Your task to perform on an android device: Go to calendar. Show me events next week Image 0: 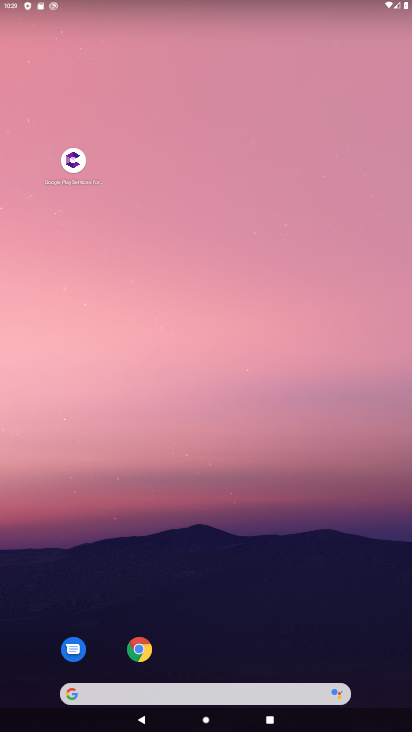
Step 0: drag from (340, 639) to (276, 129)
Your task to perform on an android device: Go to calendar. Show me events next week Image 1: 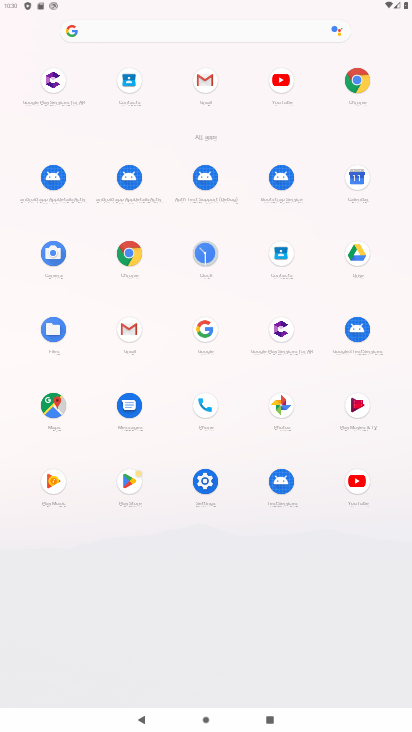
Step 1: click (362, 174)
Your task to perform on an android device: Go to calendar. Show me events next week Image 2: 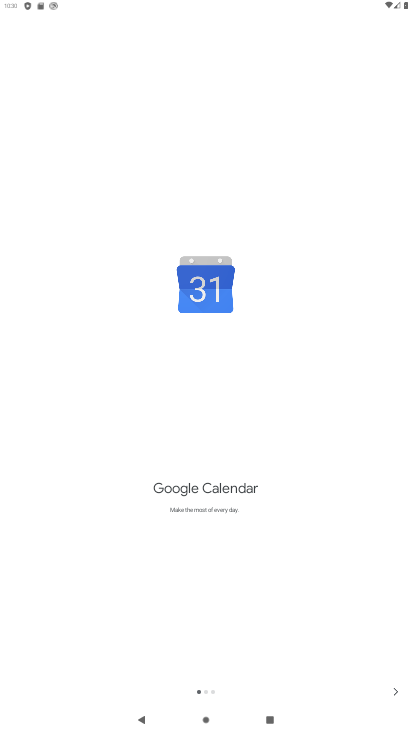
Step 2: click (393, 687)
Your task to perform on an android device: Go to calendar. Show me events next week Image 3: 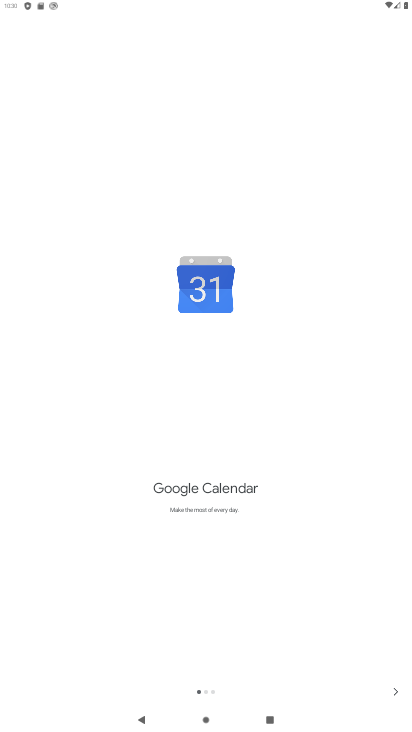
Step 3: click (393, 687)
Your task to perform on an android device: Go to calendar. Show me events next week Image 4: 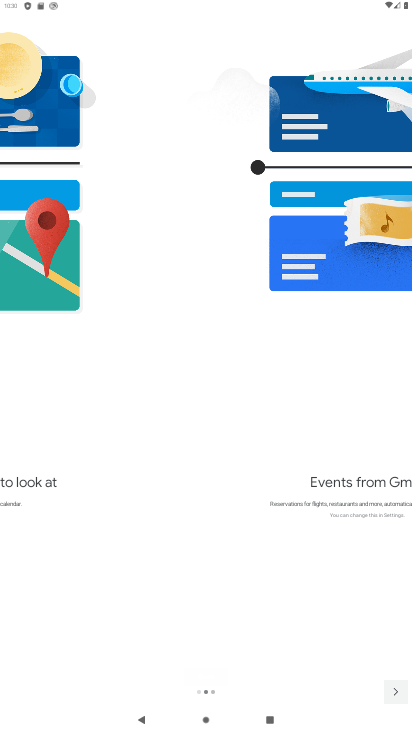
Step 4: click (393, 687)
Your task to perform on an android device: Go to calendar. Show me events next week Image 5: 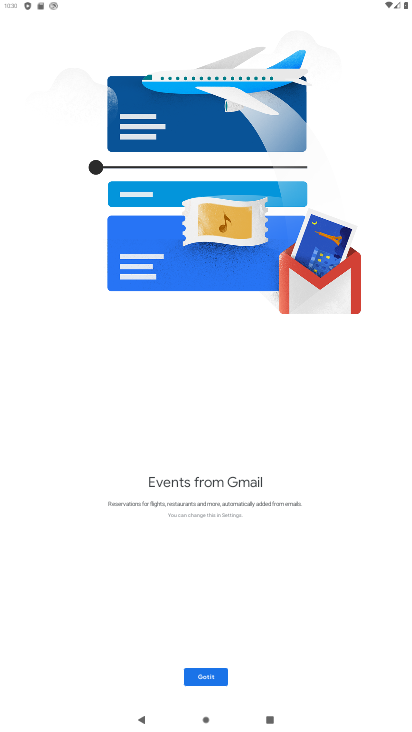
Step 5: click (200, 682)
Your task to perform on an android device: Go to calendar. Show me events next week Image 6: 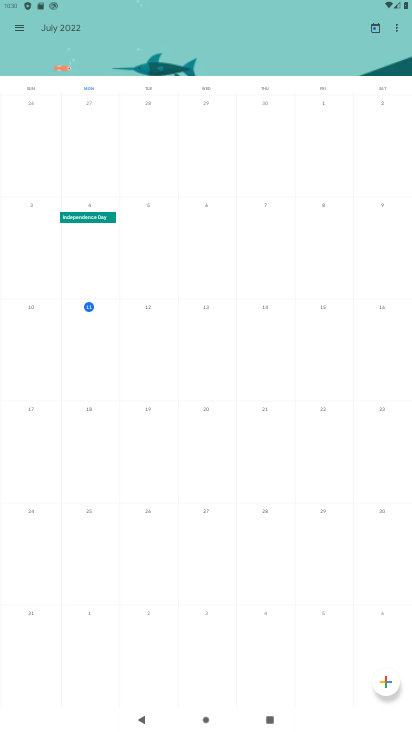
Step 6: click (90, 407)
Your task to perform on an android device: Go to calendar. Show me events next week Image 7: 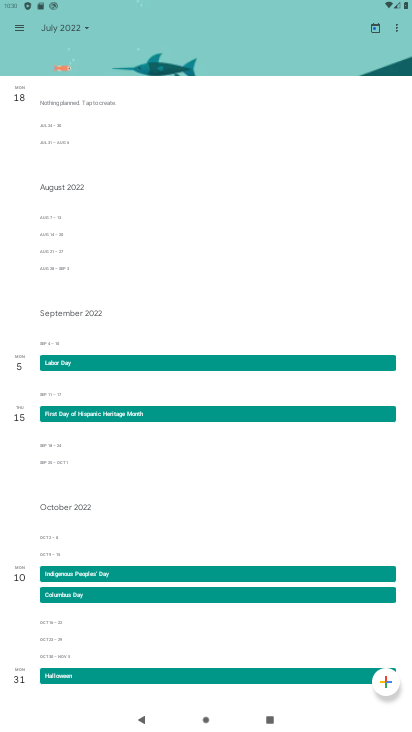
Step 7: click (14, 25)
Your task to perform on an android device: Go to calendar. Show me events next week Image 8: 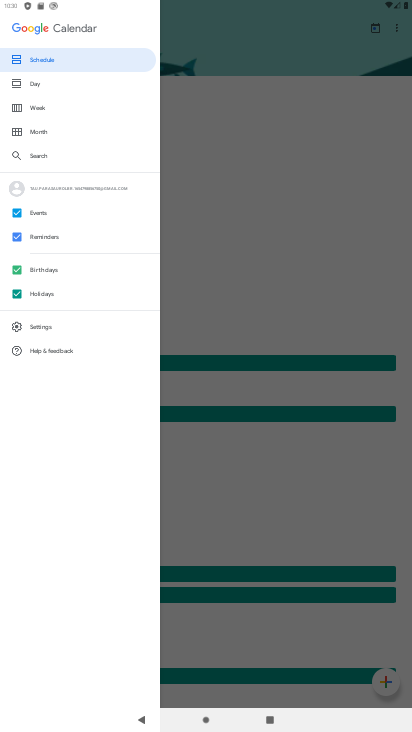
Step 8: click (39, 110)
Your task to perform on an android device: Go to calendar. Show me events next week Image 9: 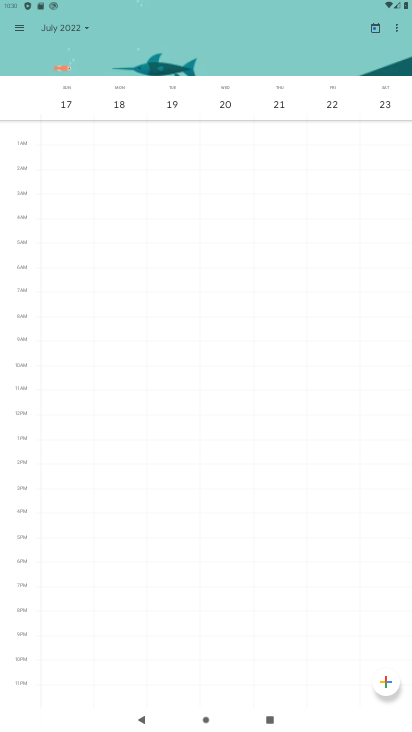
Step 9: task complete